Your task to perform on an android device: change the clock display to show seconds Image 0: 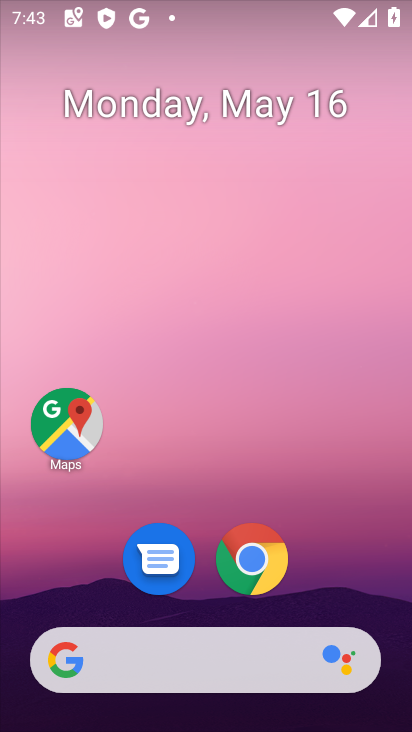
Step 0: drag from (350, 600) to (346, 247)
Your task to perform on an android device: change the clock display to show seconds Image 1: 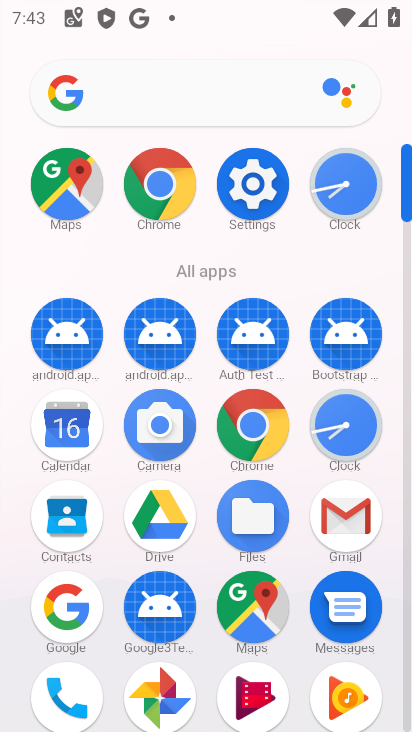
Step 1: click (340, 433)
Your task to perform on an android device: change the clock display to show seconds Image 2: 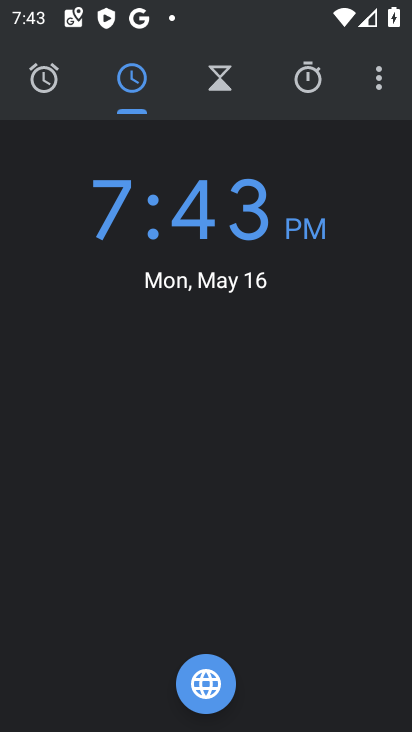
Step 2: click (47, 87)
Your task to perform on an android device: change the clock display to show seconds Image 3: 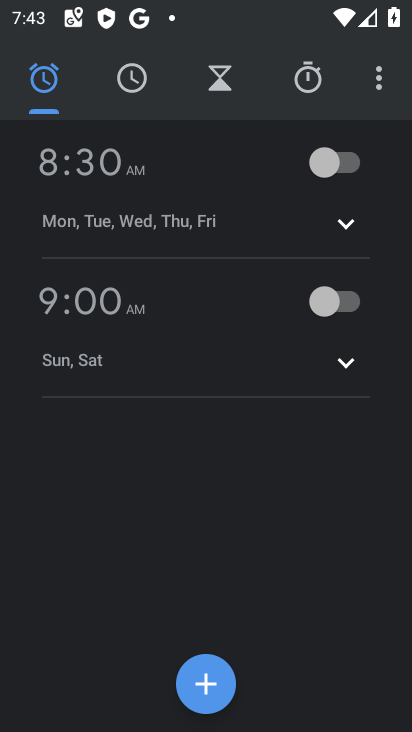
Step 3: click (380, 87)
Your task to perform on an android device: change the clock display to show seconds Image 4: 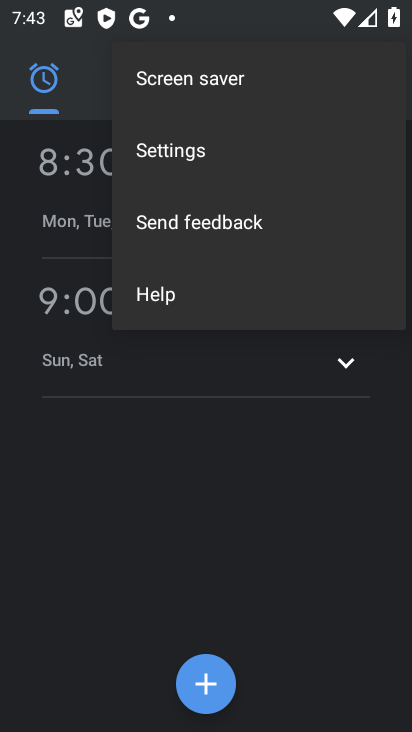
Step 4: click (182, 164)
Your task to perform on an android device: change the clock display to show seconds Image 5: 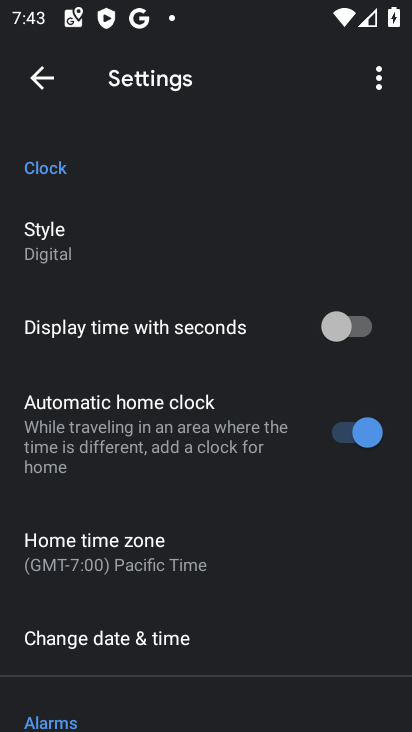
Step 5: click (367, 325)
Your task to perform on an android device: change the clock display to show seconds Image 6: 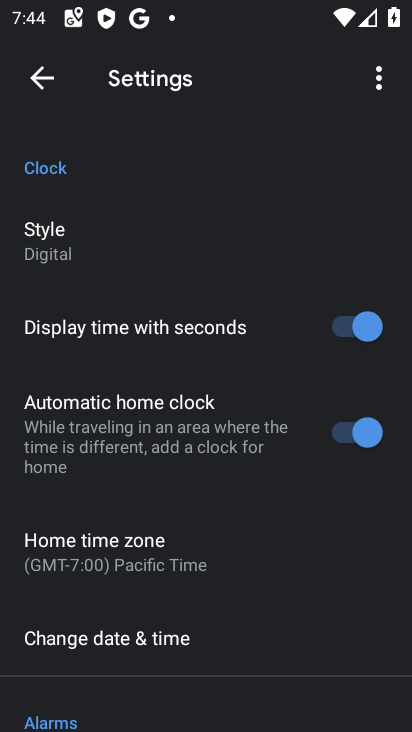
Step 6: click (15, 164)
Your task to perform on an android device: change the clock display to show seconds Image 7: 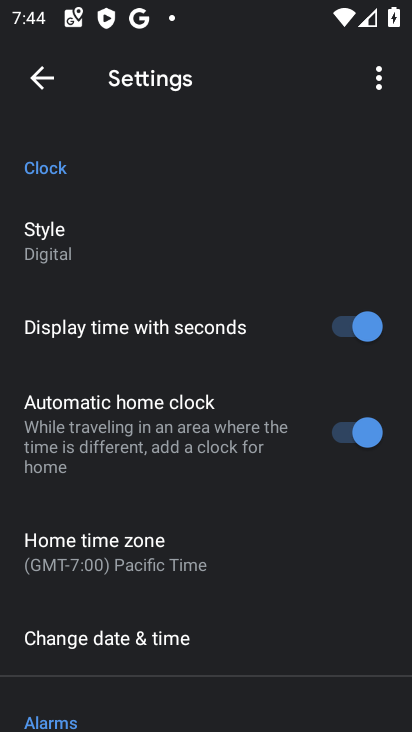
Step 7: task complete